Your task to perform on an android device: toggle improve location accuracy Image 0: 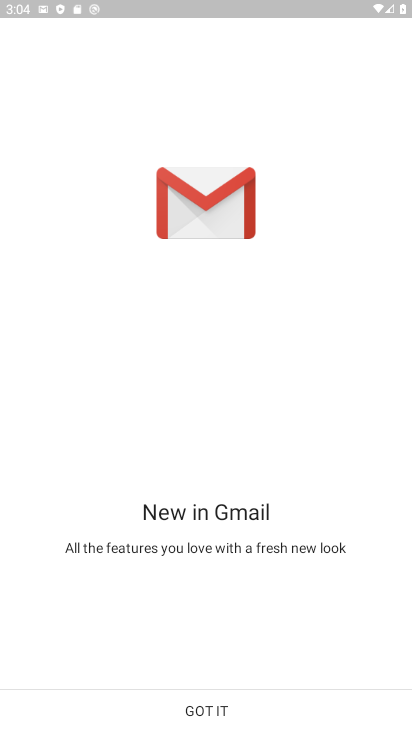
Step 0: press home button
Your task to perform on an android device: toggle improve location accuracy Image 1: 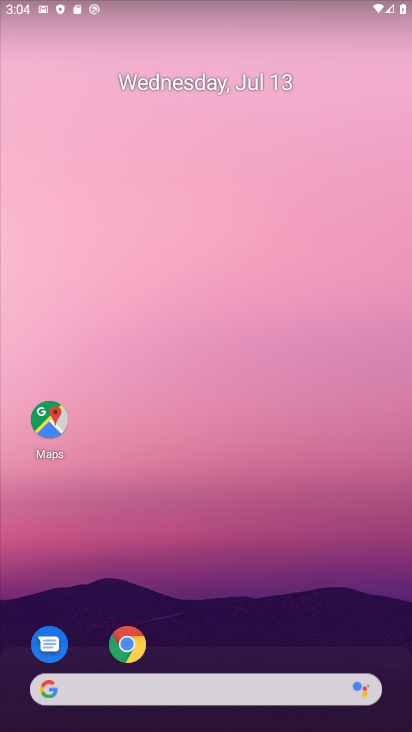
Step 1: drag from (19, 721) to (275, 80)
Your task to perform on an android device: toggle improve location accuracy Image 2: 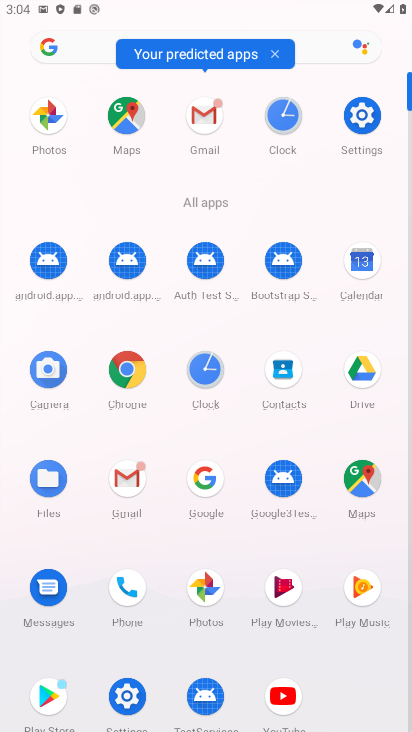
Step 2: click (116, 694)
Your task to perform on an android device: toggle improve location accuracy Image 3: 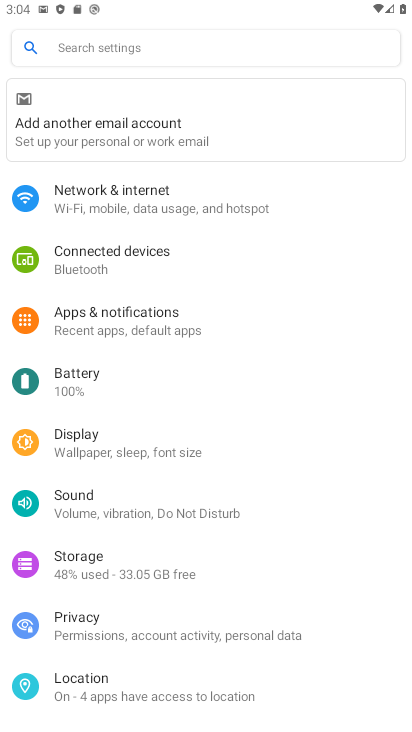
Step 3: click (79, 677)
Your task to perform on an android device: toggle improve location accuracy Image 4: 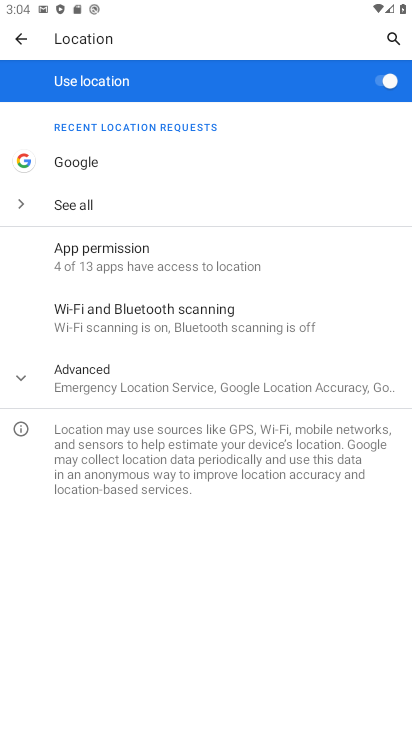
Step 4: click (101, 391)
Your task to perform on an android device: toggle improve location accuracy Image 5: 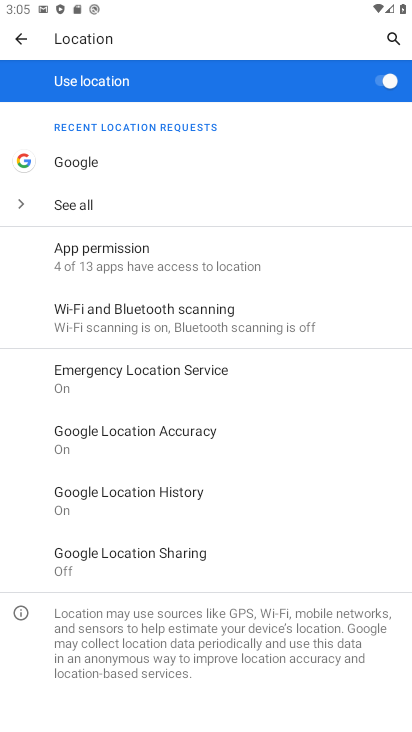
Step 5: task complete